Your task to perform on an android device: Search for Italian restaurants on Maps Image 0: 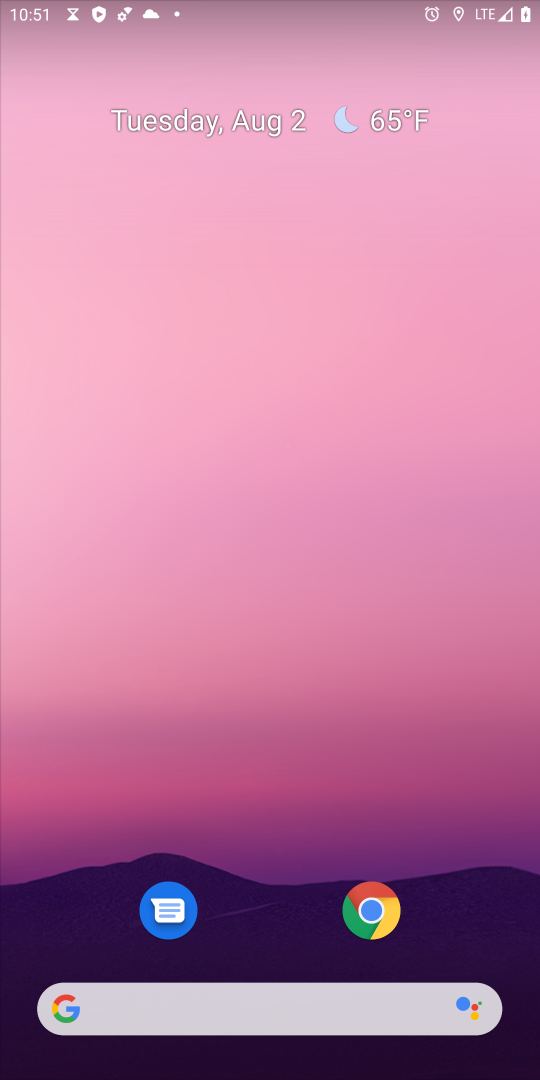
Step 0: drag from (272, 892) to (325, 344)
Your task to perform on an android device: Search for Italian restaurants on Maps Image 1: 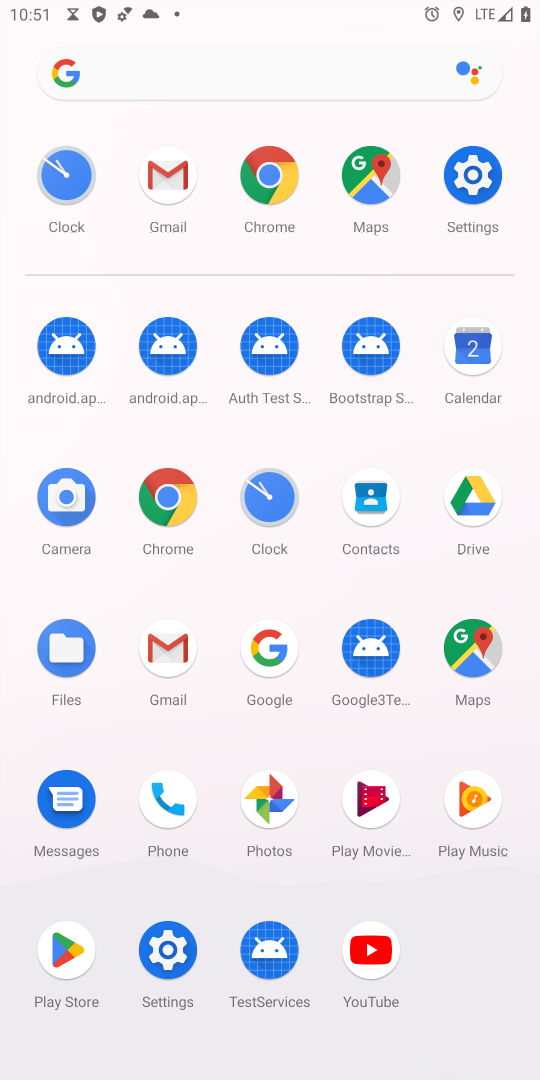
Step 1: click (458, 649)
Your task to perform on an android device: Search for Italian restaurants on Maps Image 2: 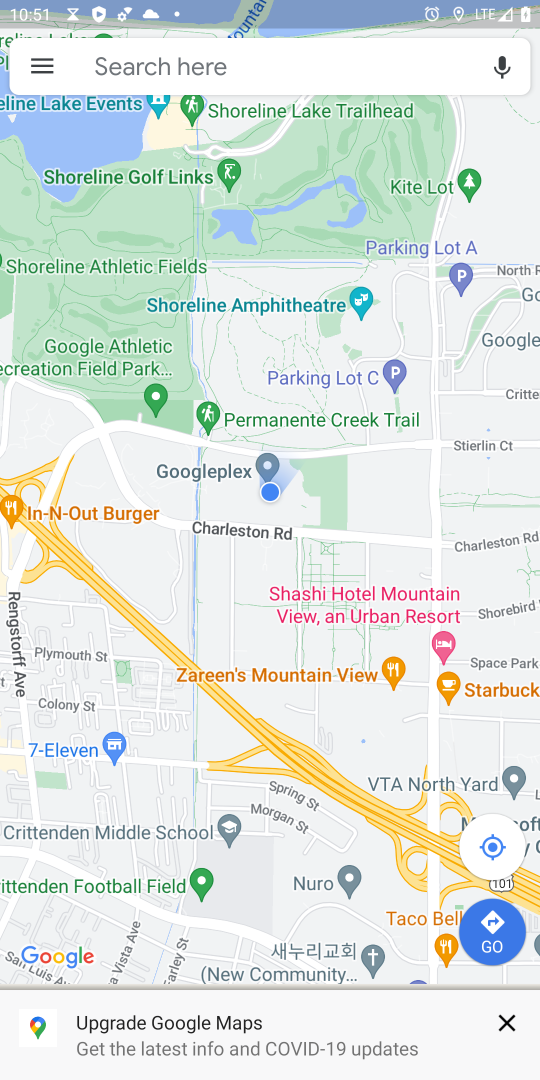
Step 2: click (220, 45)
Your task to perform on an android device: Search for Italian restaurants on Maps Image 3: 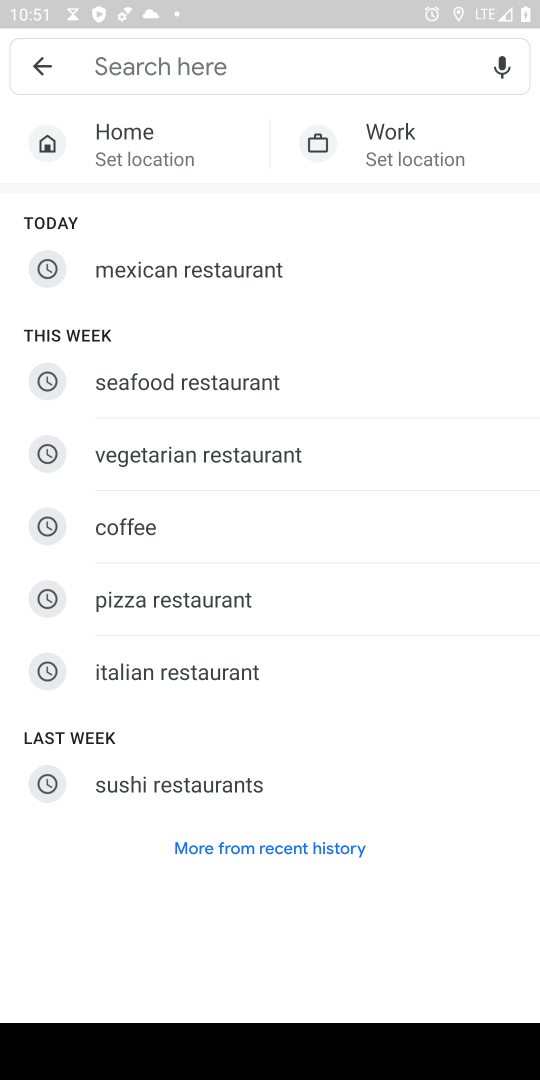
Step 3: click (237, 681)
Your task to perform on an android device: Search for Italian restaurants on Maps Image 4: 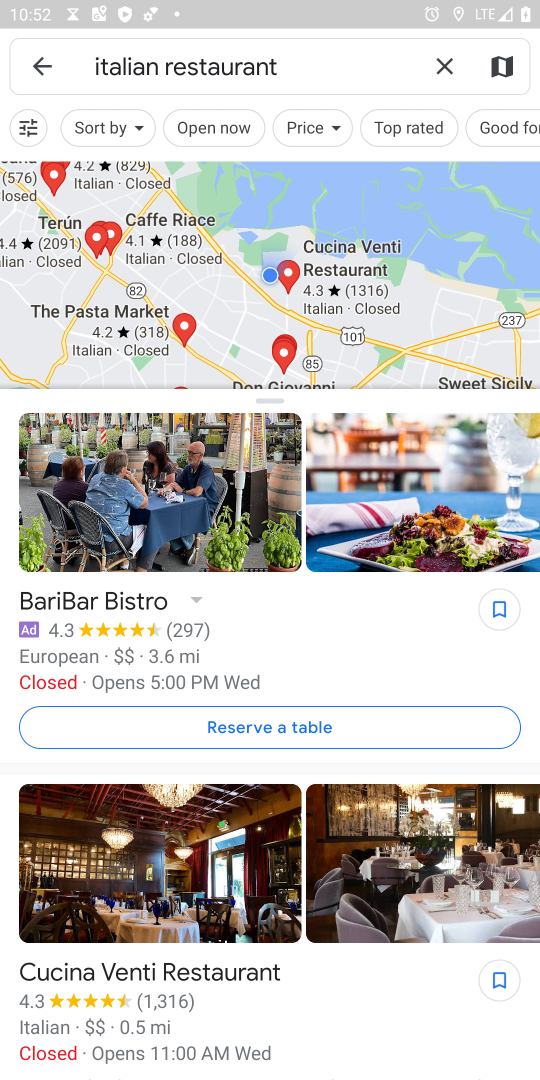
Step 4: task complete